Your task to perform on an android device: Turn on the flashlight Image 0: 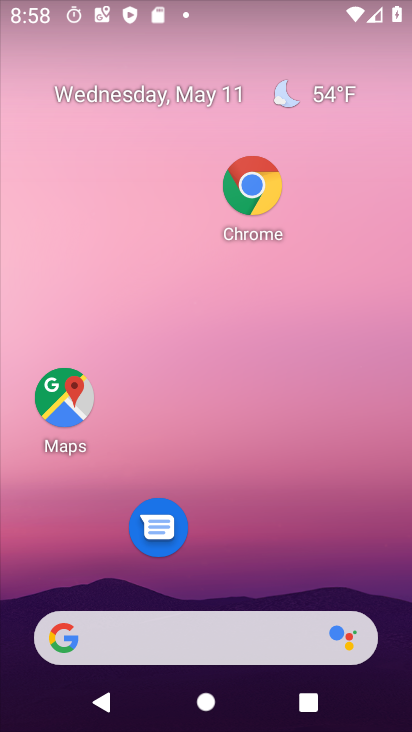
Step 0: drag from (251, 553) to (265, 83)
Your task to perform on an android device: Turn on the flashlight Image 1: 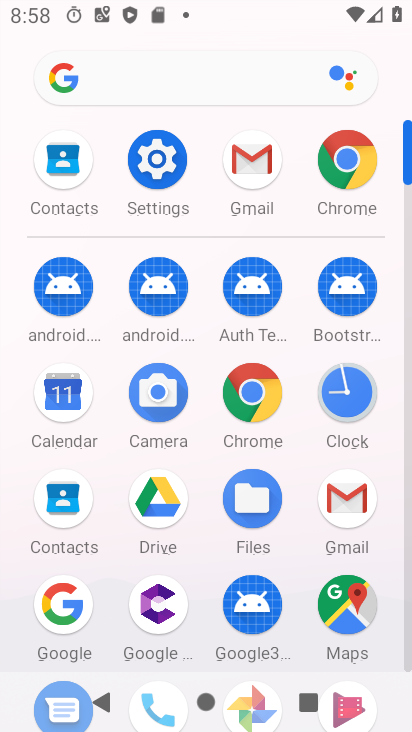
Step 1: click (155, 162)
Your task to perform on an android device: Turn on the flashlight Image 2: 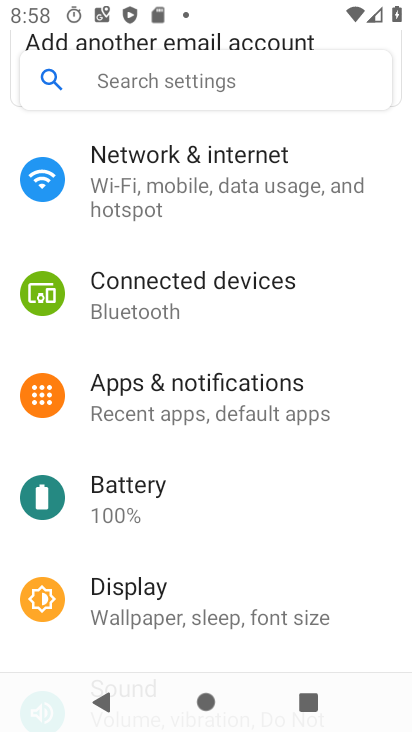
Step 2: click (197, 82)
Your task to perform on an android device: Turn on the flashlight Image 3: 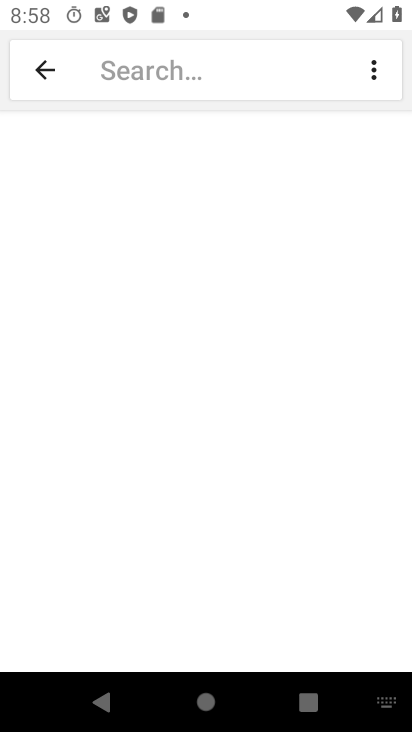
Step 3: type "flash"
Your task to perform on an android device: Turn on the flashlight Image 4: 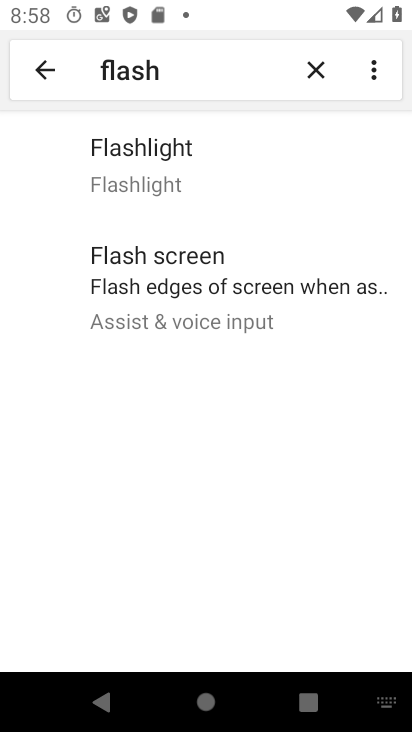
Step 4: task complete